Your task to perform on an android device: clear all cookies in the chrome app Image 0: 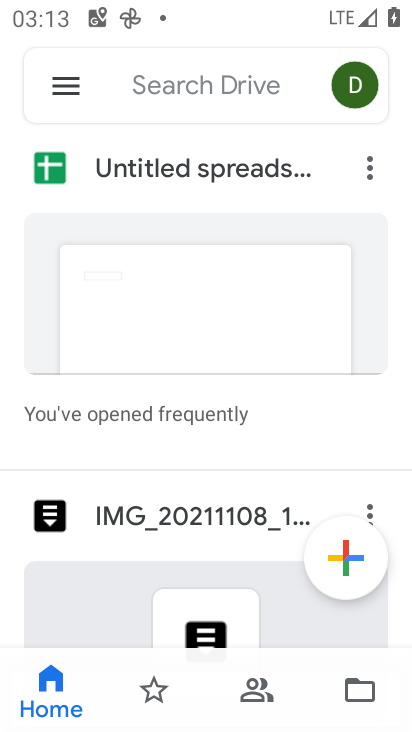
Step 0: press home button
Your task to perform on an android device: clear all cookies in the chrome app Image 1: 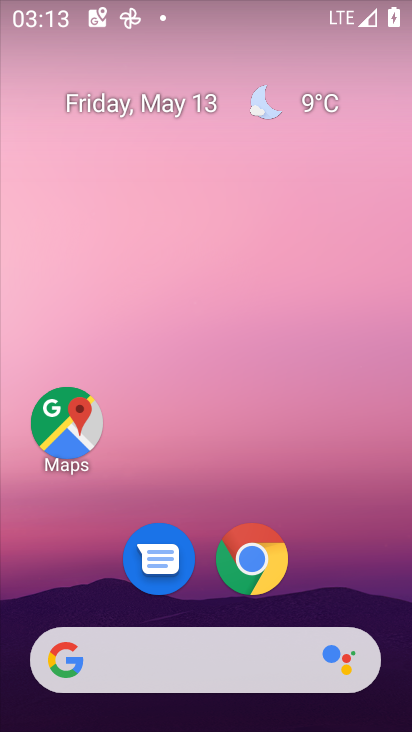
Step 1: click (259, 557)
Your task to perform on an android device: clear all cookies in the chrome app Image 2: 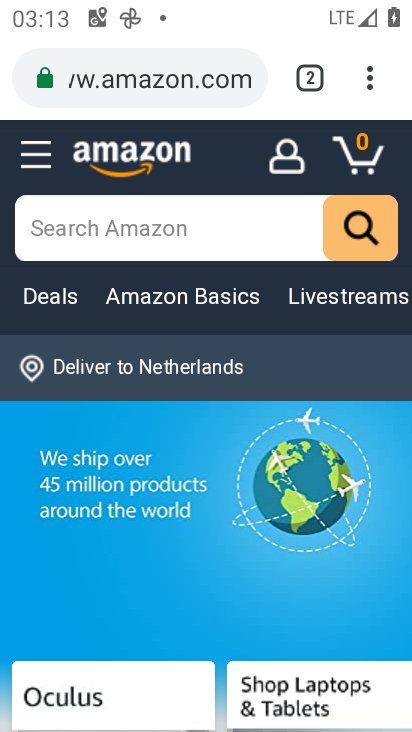
Step 2: click (372, 85)
Your task to perform on an android device: clear all cookies in the chrome app Image 3: 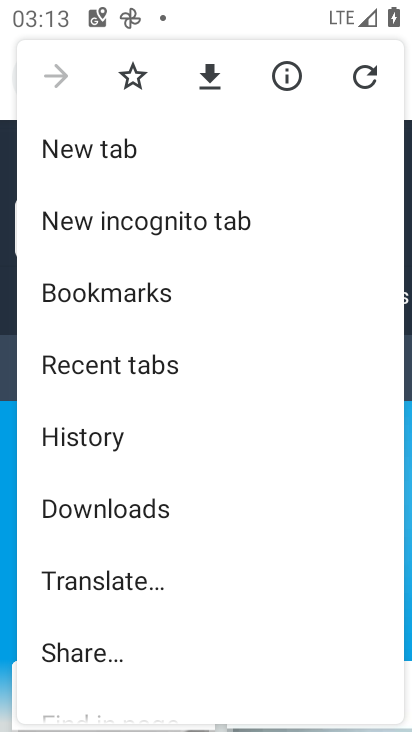
Step 3: click (75, 427)
Your task to perform on an android device: clear all cookies in the chrome app Image 4: 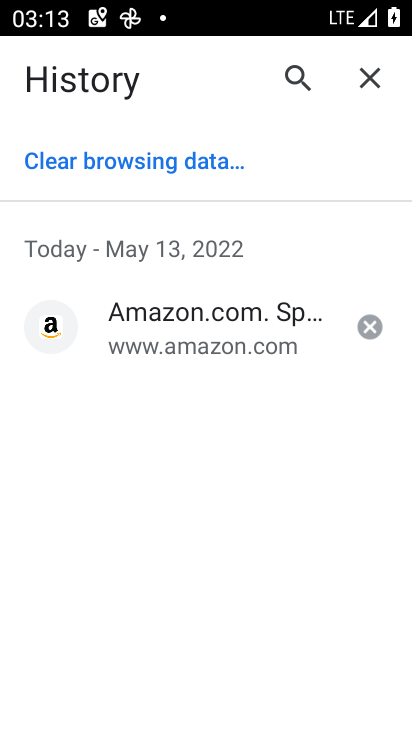
Step 4: click (69, 160)
Your task to perform on an android device: clear all cookies in the chrome app Image 5: 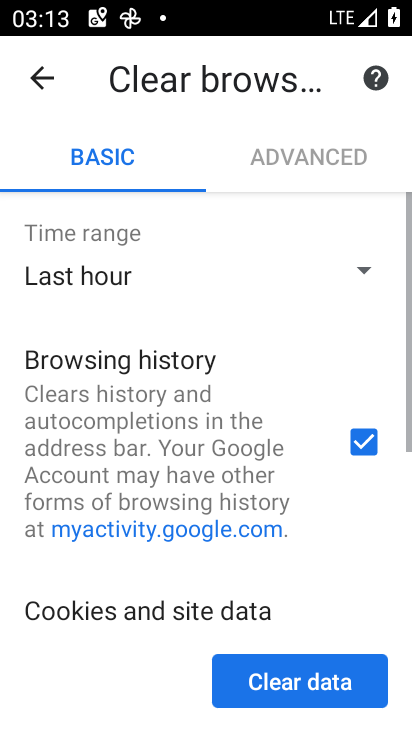
Step 5: click (285, 683)
Your task to perform on an android device: clear all cookies in the chrome app Image 6: 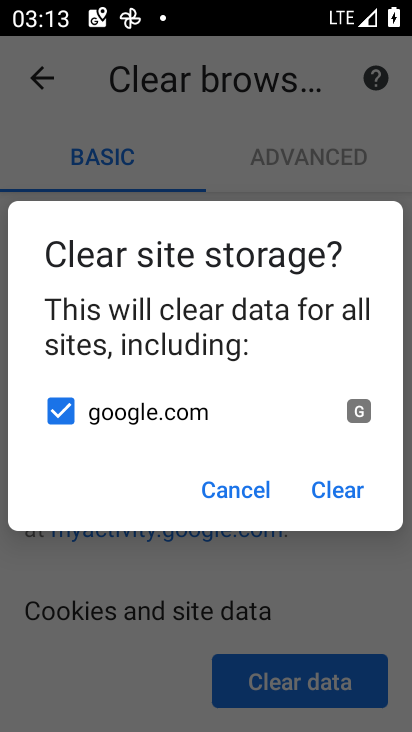
Step 6: click (337, 483)
Your task to perform on an android device: clear all cookies in the chrome app Image 7: 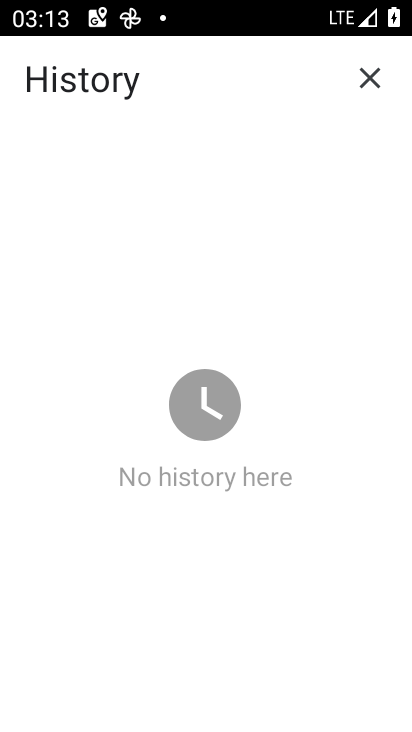
Step 7: task complete